Your task to perform on an android device: install app "File Manager" Image 0: 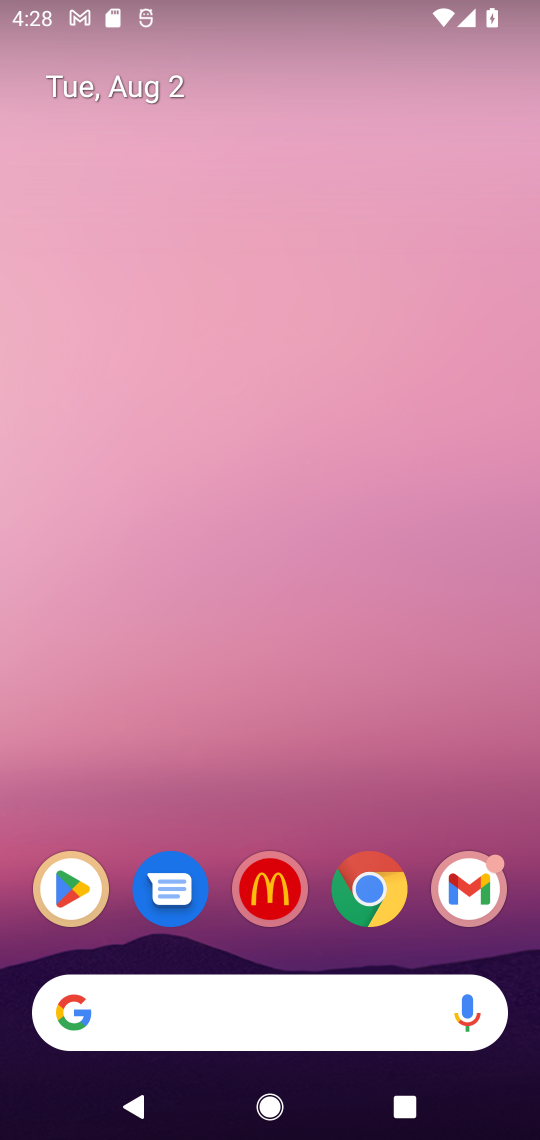
Step 0: press home button
Your task to perform on an android device: install app "File Manager" Image 1: 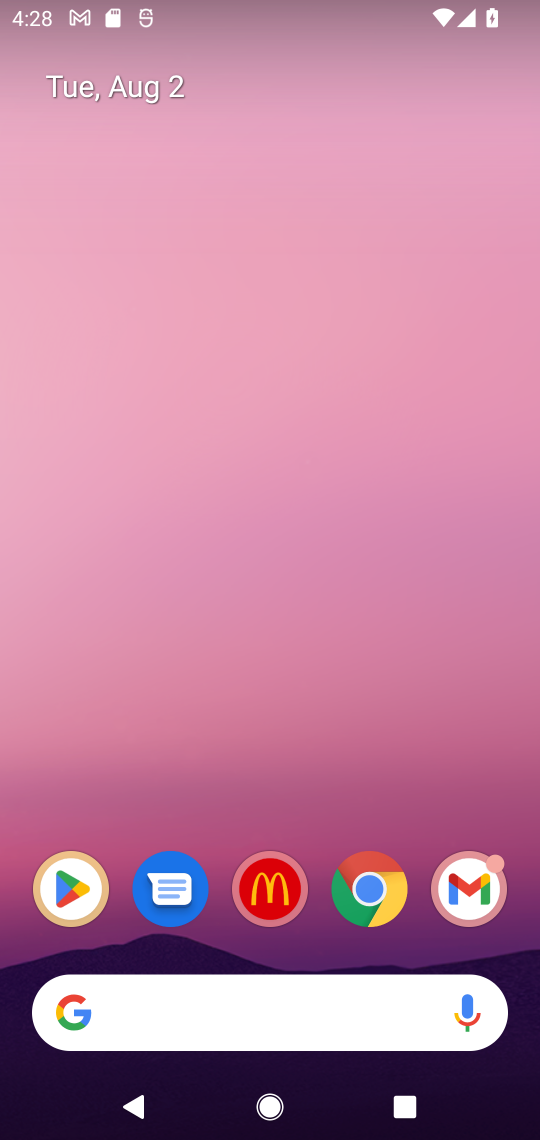
Step 1: drag from (385, 776) to (347, 106)
Your task to perform on an android device: install app "File Manager" Image 2: 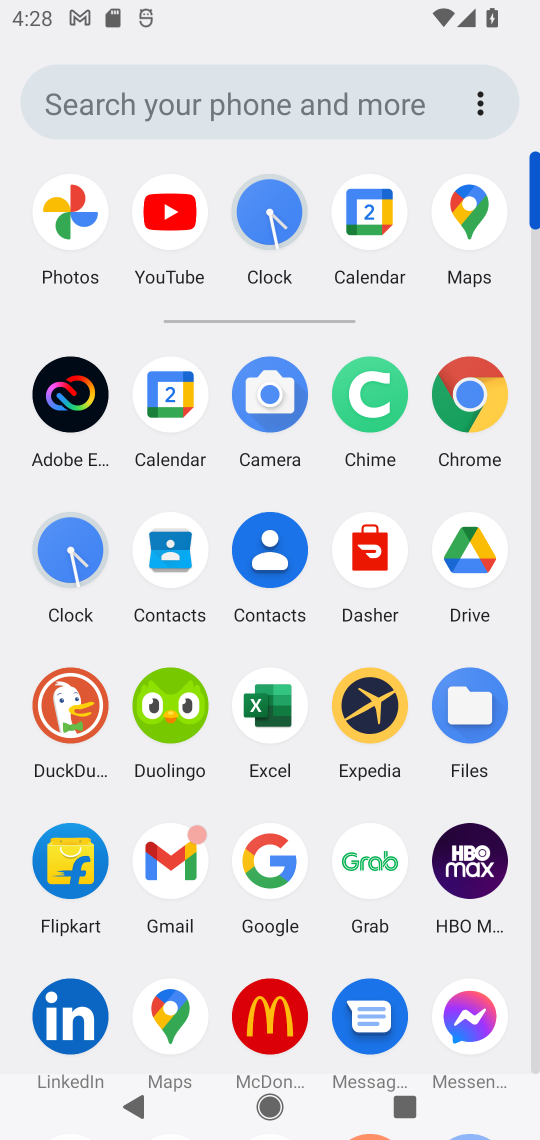
Step 2: drag from (516, 960) to (516, 575)
Your task to perform on an android device: install app "File Manager" Image 3: 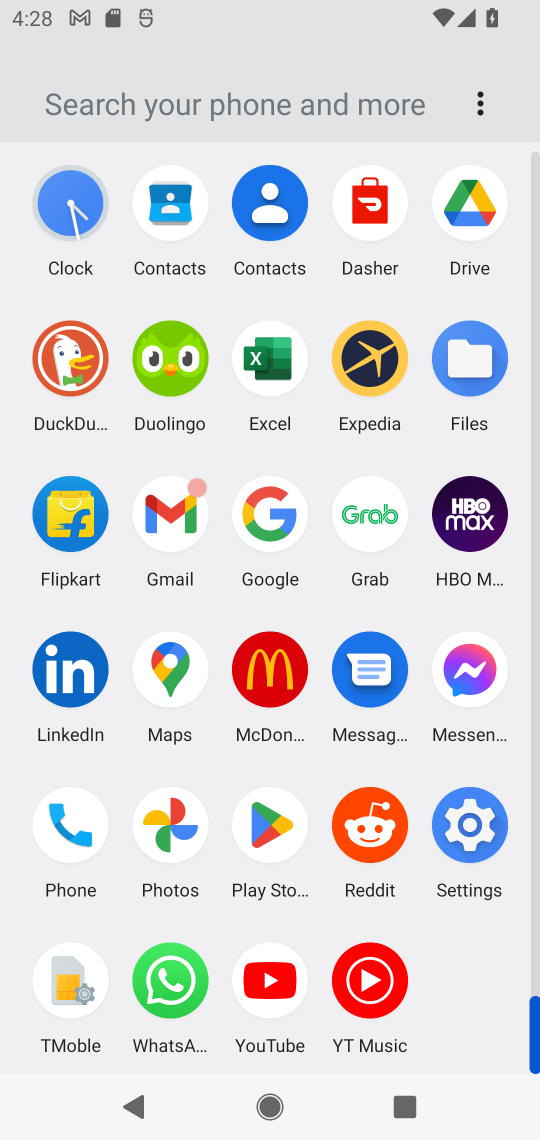
Step 3: click (268, 834)
Your task to perform on an android device: install app "File Manager" Image 4: 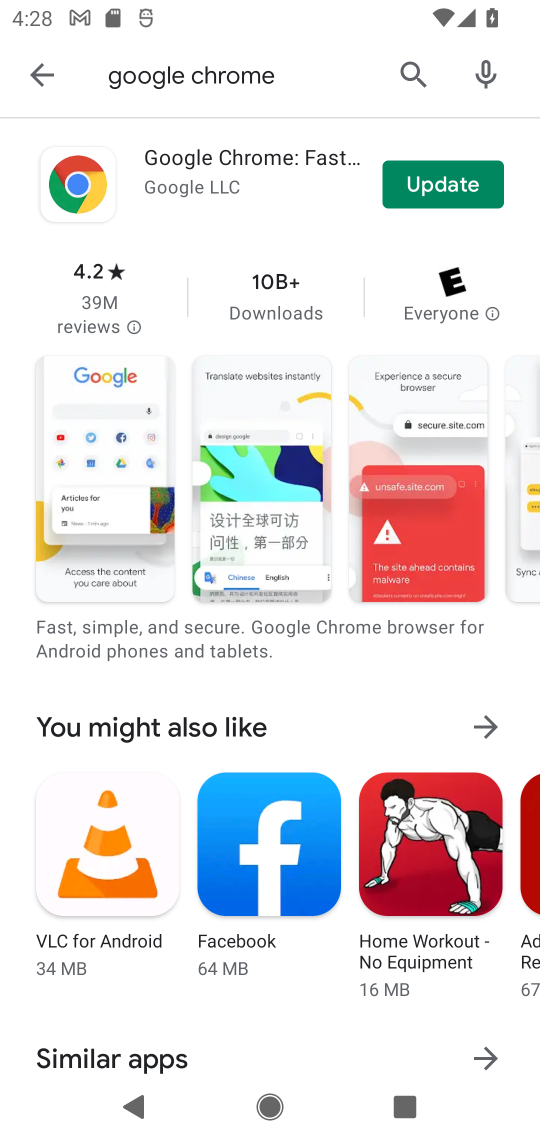
Step 4: click (419, 69)
Your task to perform on an android device: install app "File Manager" Image 5: 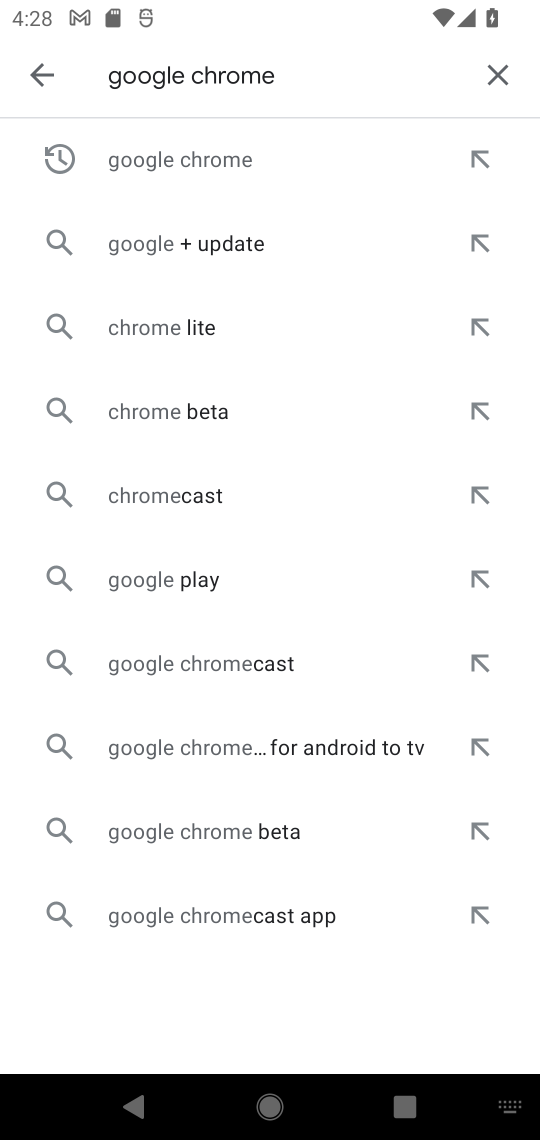
Step 5: click (494, 72)
Your task to perform on an android device: install app "File Manager" Image 6: 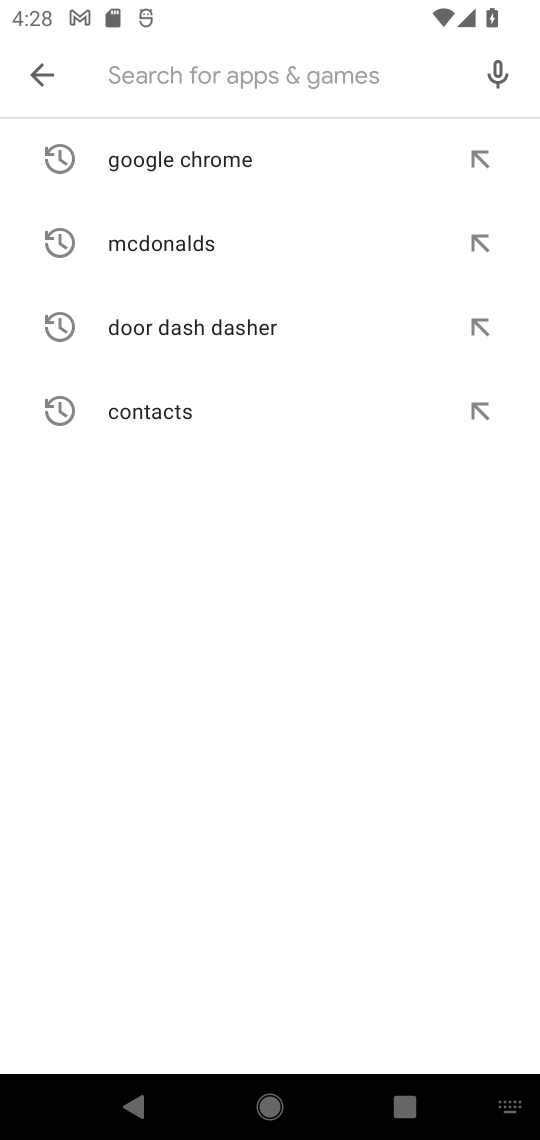
Step 6: click (259, 80)
Your task to perform on an android device: install app "File Manager" Image 7: 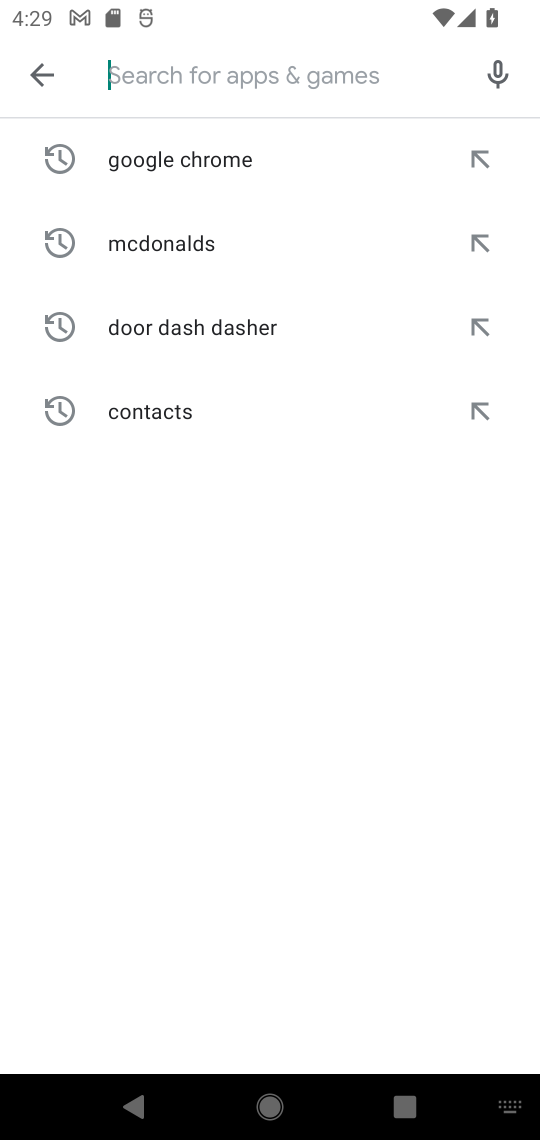
Step 7: type "file manager"
Your task to perform on an android device: install app "File Manager" Image 8: 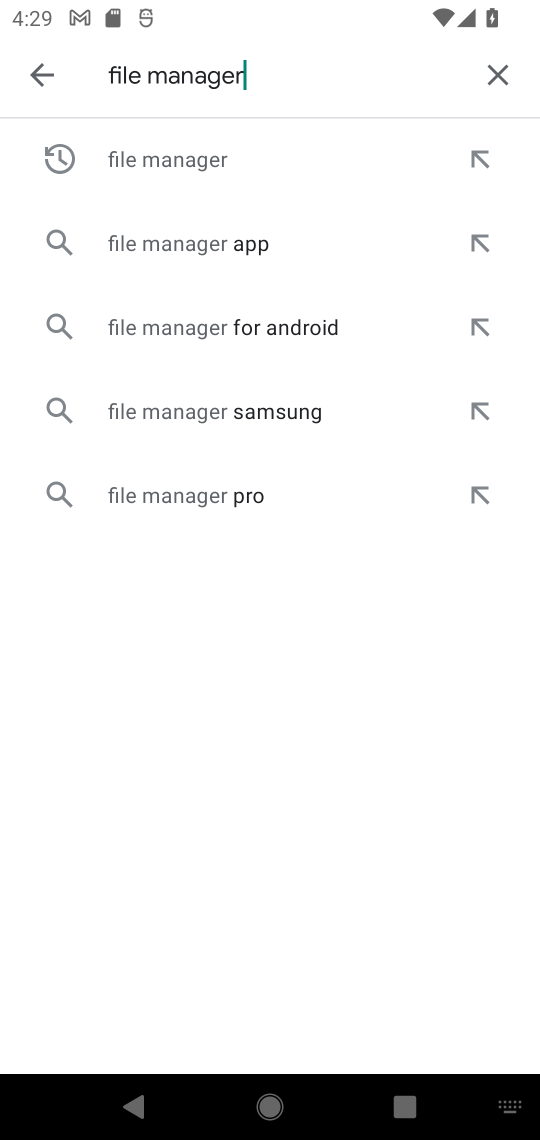
Step 8: click (225, 179)
Your task to perform on an android device: install app "File Manager" Image 9: 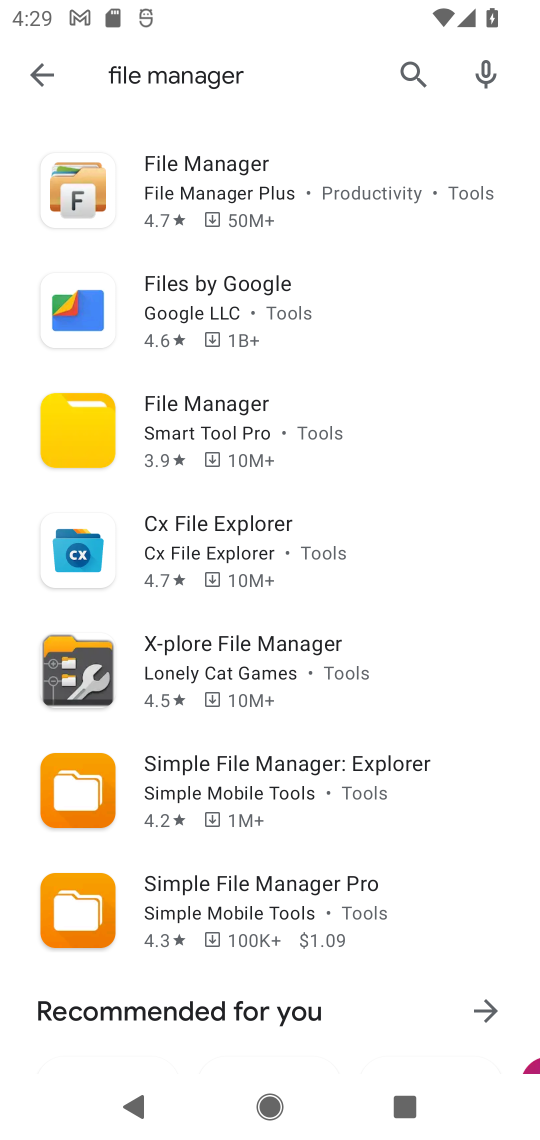
Step 9: task complete